Your task to perform on an android device: see sites visited before in the chrome app Image 0: 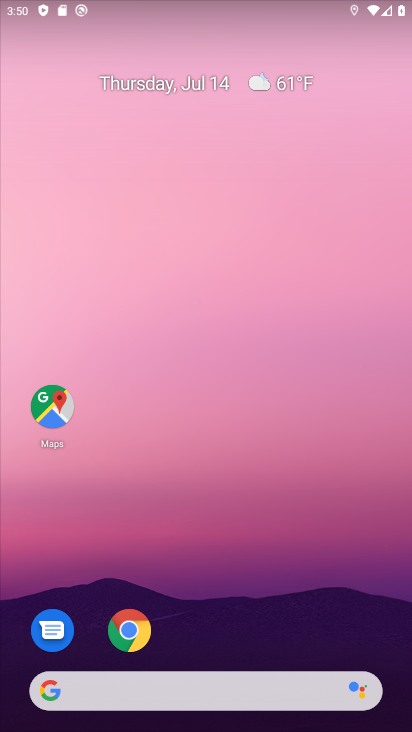
Step 0: click (134, 627)
Your task to perform on an android device: see sites visited before in the chrome app Image 1: 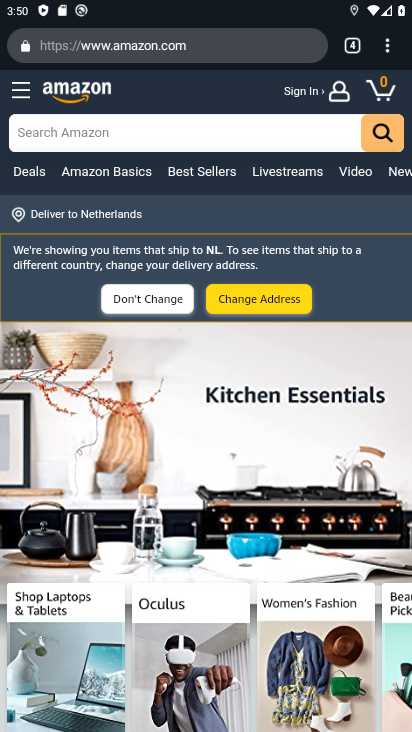
Step 1: click (390, 40)
Your task to perform on an android device: see sites visited before in the chrome app Image 2: 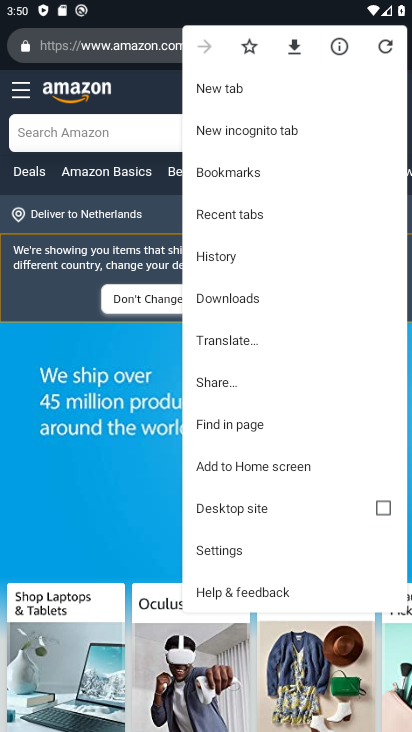
Step 2: click (245, 264)
Your task to perform on an android device: see sites visited before in the chrome app Image 3: 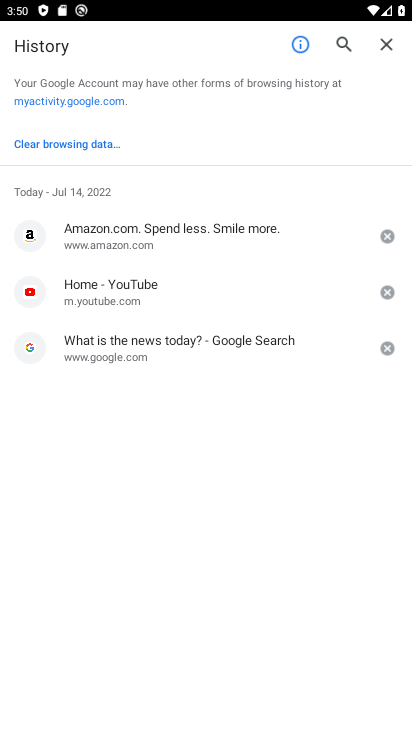
Step 3: task complete